Your task to perform on an android device: toggle improve location accuracy Image 0: 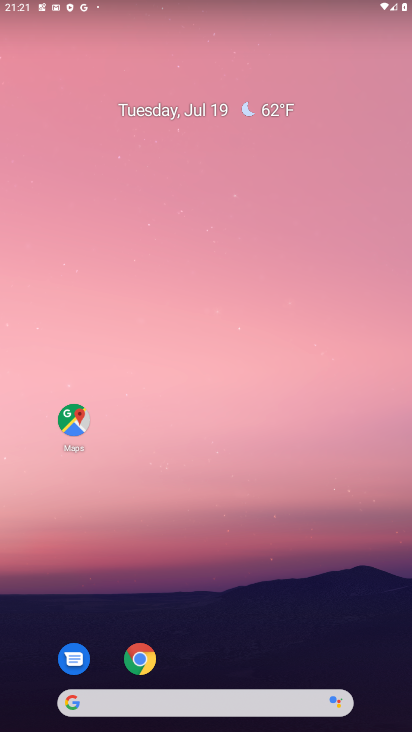
Step 0: press home button
Your task to perform on an android device: toggle improve location accuracy Image 1: 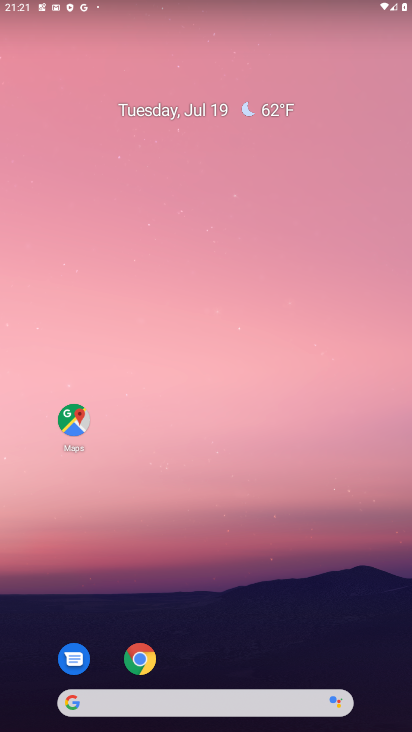
Step 1: drag from (228, 644) to (383, 209)
Your task to perform on an android device: toggle improve location accuracy Image 2: 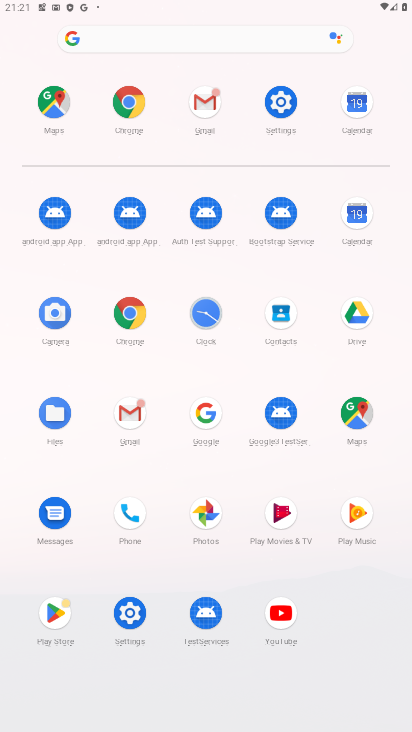
Step 2: click (279, 110)
Your task to perform on an android device: toggle improve location accuracy Image 3: 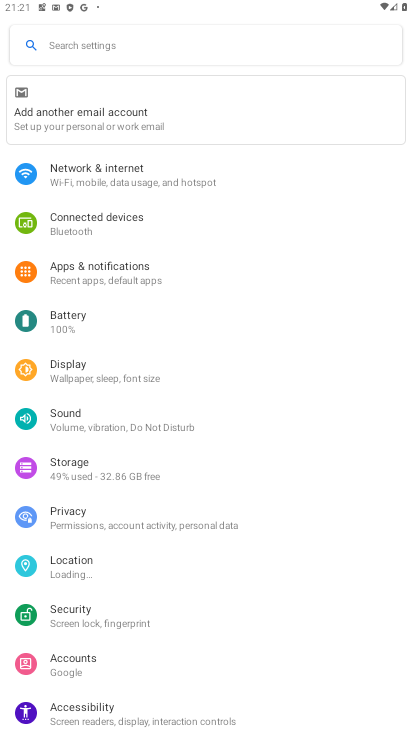
Step 3: click (73, 557)
Your task to perform on an android device: toggle improve location accuracy Image 4: 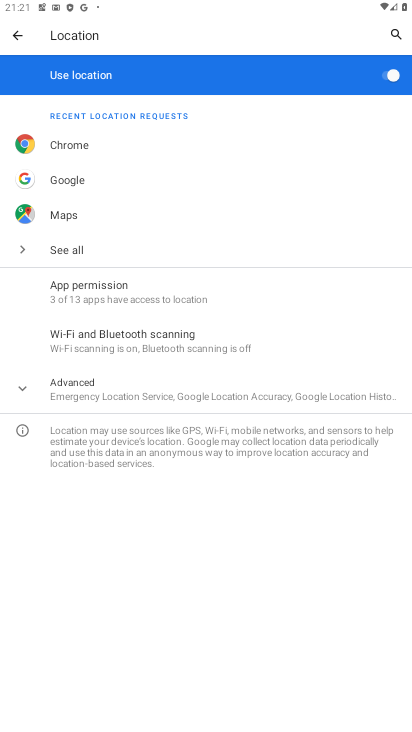
Step 4: click (94, 388)
Your task to perform on an android device: toggle improve location accuracy Image 5: 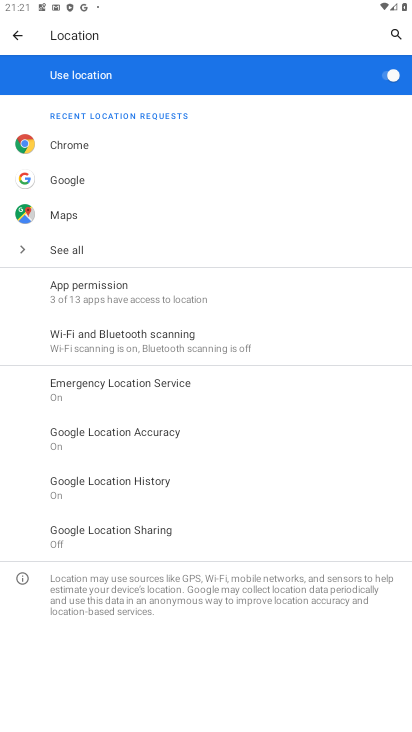
Step 5: click (130, 428)
Your task to perform on an android device: toggle improve location accuracy Image 6: 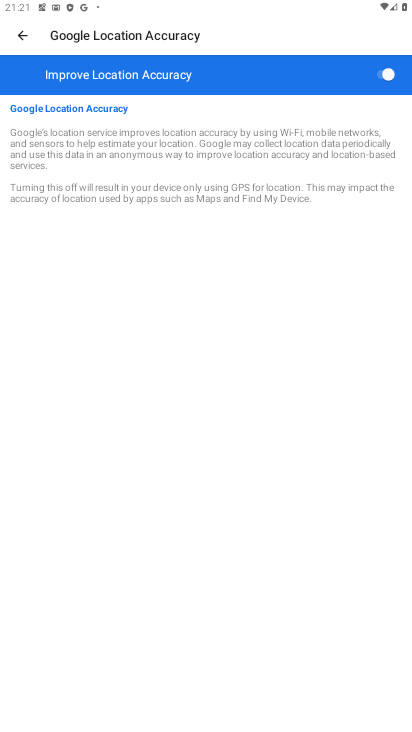
Step 6: click (293, 80)
Your task to perform on an android device: toggle improve location accuracy Image 7: 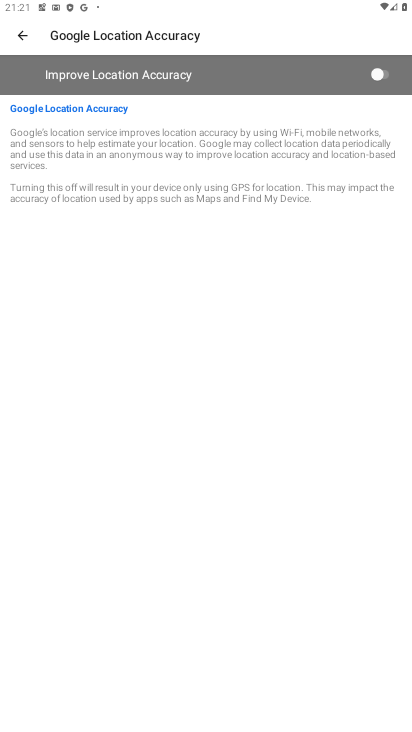
Step 7: task complete